Your task to perform on an android device: Open calendar and show me the second week of next month Image 0: 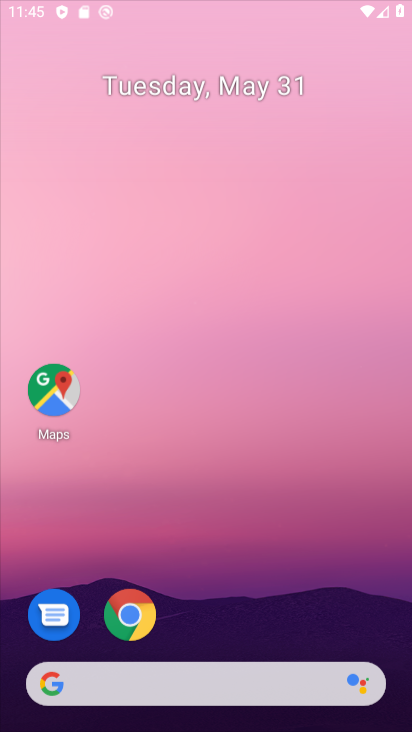
Step 0: drag from (366, 656) to (377, 44)
Your task to perform on an android device: Open calendar and show me the second week of next month Image 1: 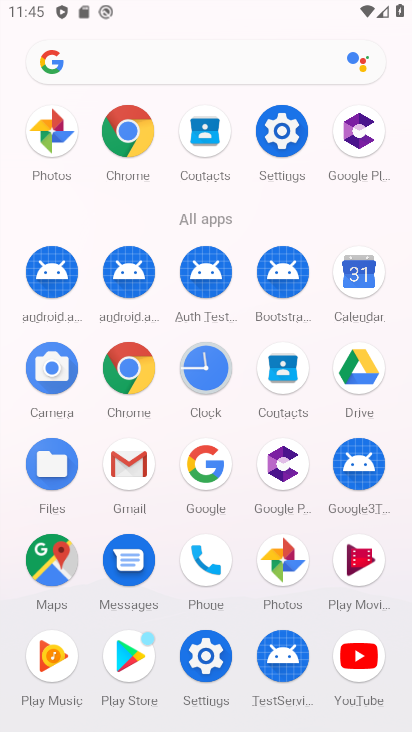
Step 1: click (367, 261)
Your task to perform on an android device: Open calendar and show me the second week of next month Image 2: 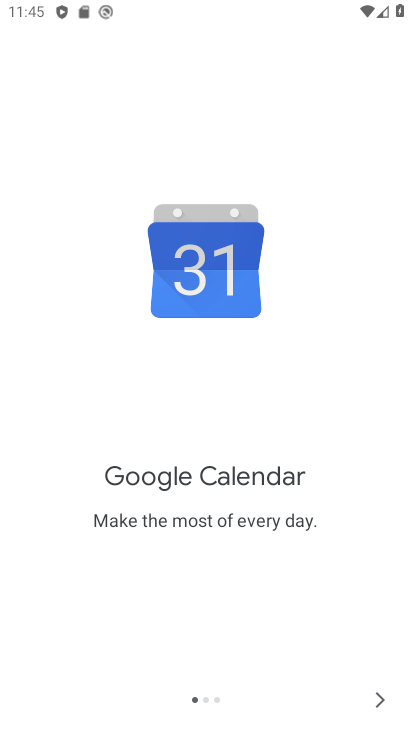
Step 2: click (374, 702)
Your task to perform on an android device: Open calendar and show me the second week of next month Image 3: 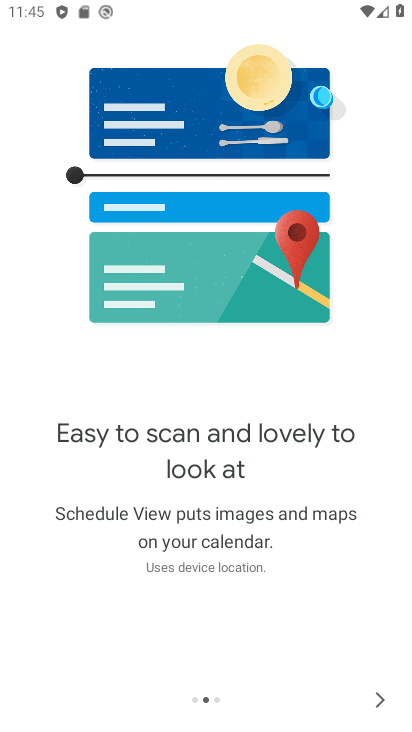
Step 3: click (374, 702)
Your task to perform on an android device: Open calendar and show me the second week of next month Image 4: 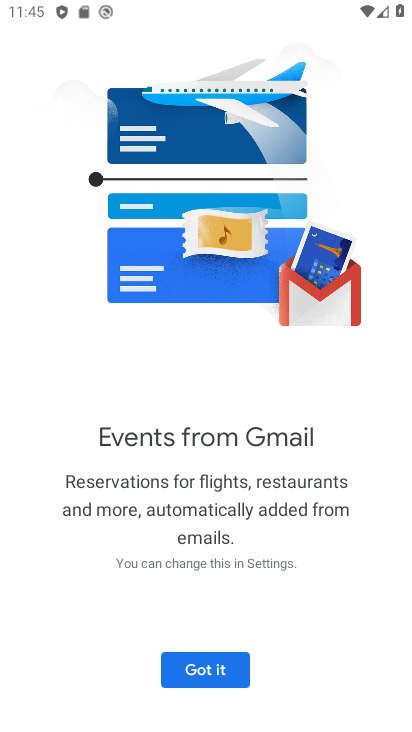
Step 4: click (179, 665)
Your task to perform on an android device: Open calendar and show me the second week of next month Image 5: 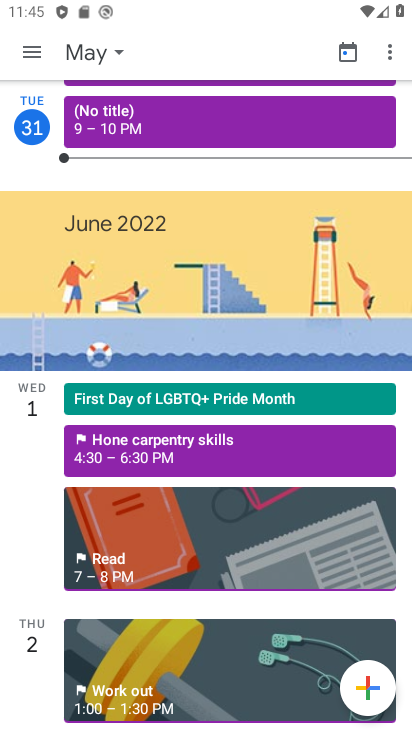
Step 5: click (124, 50)
Your task to perform on an android device: Open calendar and show me the second week of next month Image 6: 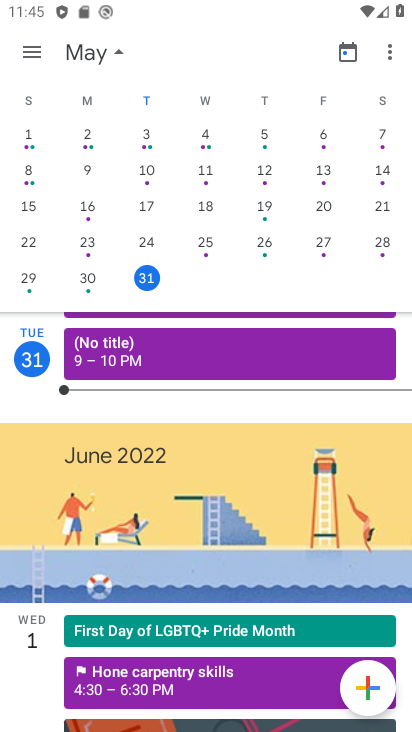
Step 6: drag from (330, 209) to (3, 226)
Your task to perform on an android device: Open calendar and show me the second week of next month Image 7: 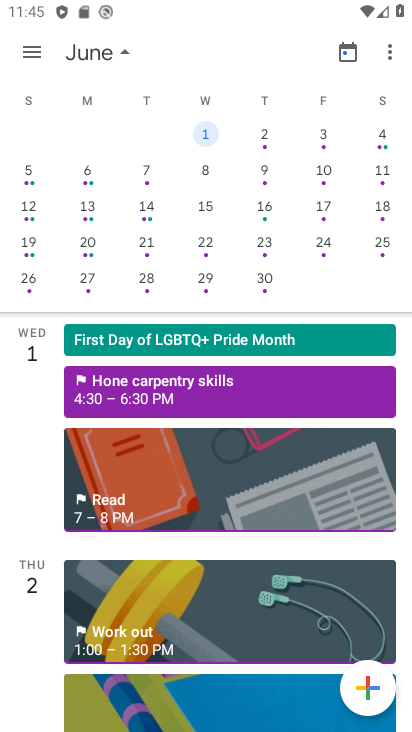
Step 7: click (208, 166)
Your task to perform on an android device: Open calendar and show me the second week of next month Image 8: 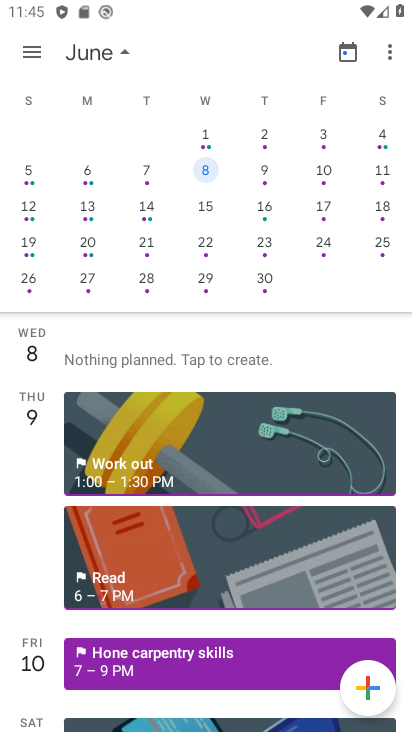
Step 8: click (40, 54)
Your task to perform on an android device: Open calendar and show me the second week of next month Image 9: 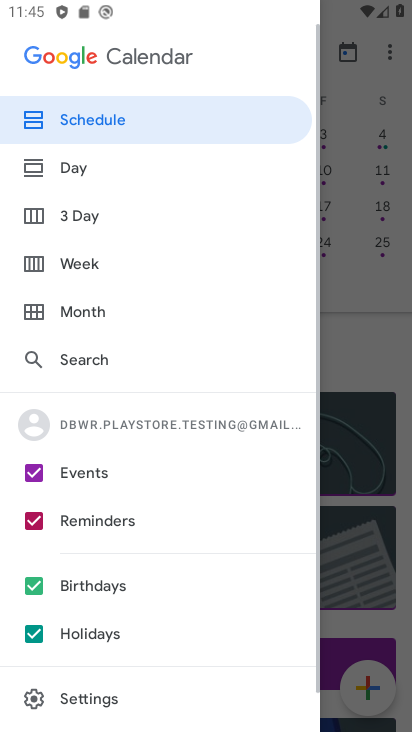
Step 9: click (111, 164)
Your task to perform on an android device: Open calendar and show me the second week of next month Image 10: 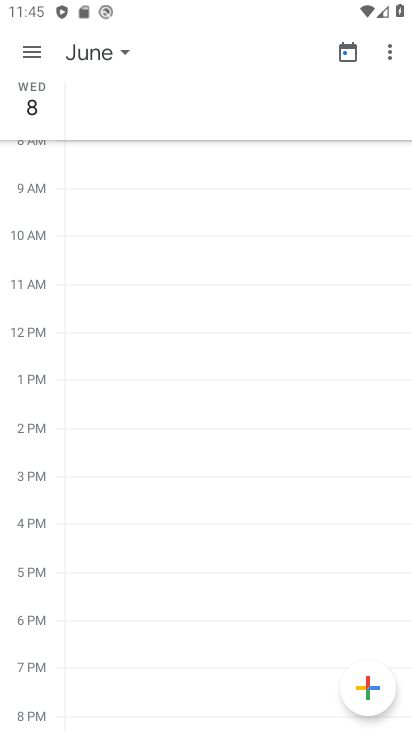
Step 10: click (25, 49)
Your task to perform on an android device: Open calendar and show me the second week of next month Image 11: 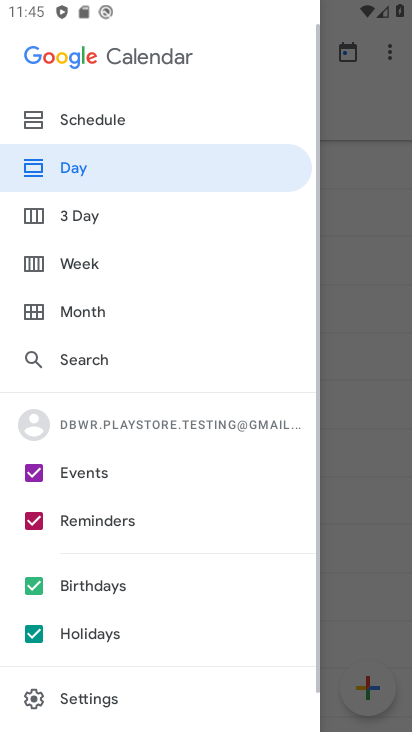
Step 11: click (88, 255)
Your task to perform on an android device: Open calendar and show me the second week of next month Image 12: 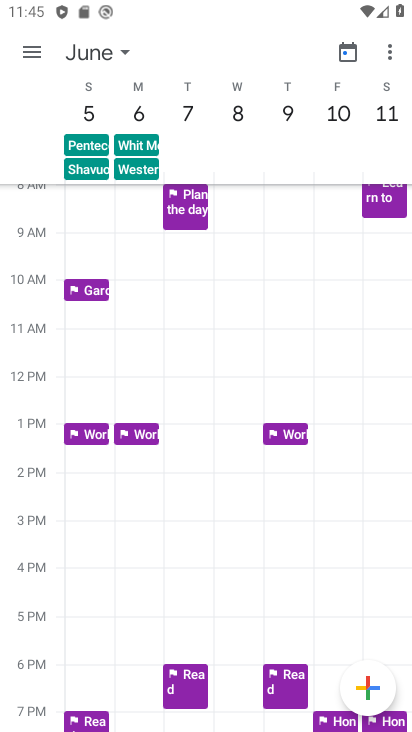
Step 12: task complete